Your task to perform on an android device: uninstall "NewsBreak: Local News & Alerts" Image 0: 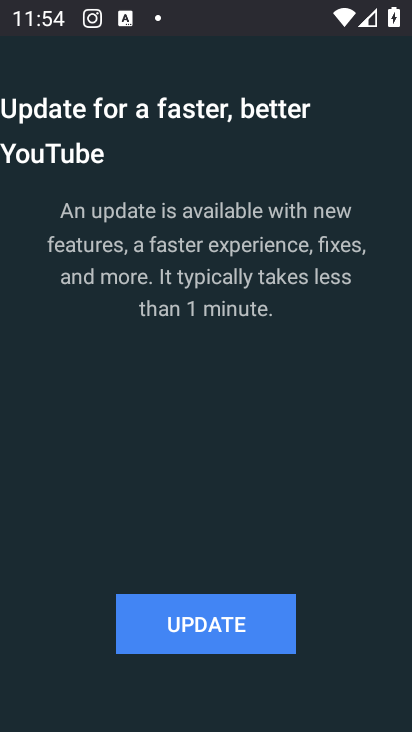
Step 0: press home button
Your task to perform on an android device: uninstall "NewsBreak: Local News & Alerts" Image 1: 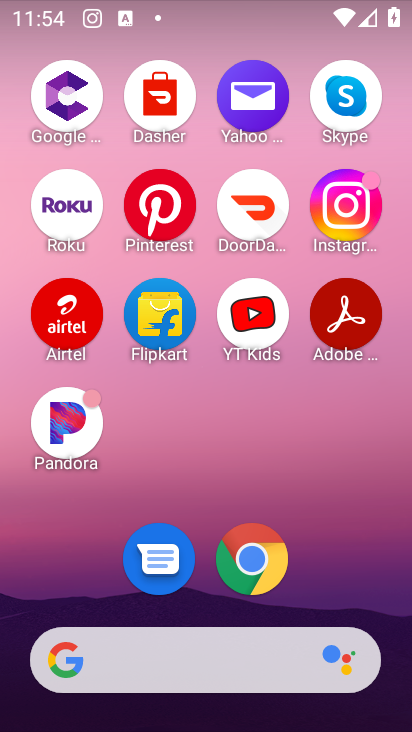
Step 1: drag from (82, 556) to (194, 38)
Your task to perform on an android device: uninstall "NewsBreak: Local News & Alerts" Image 2: 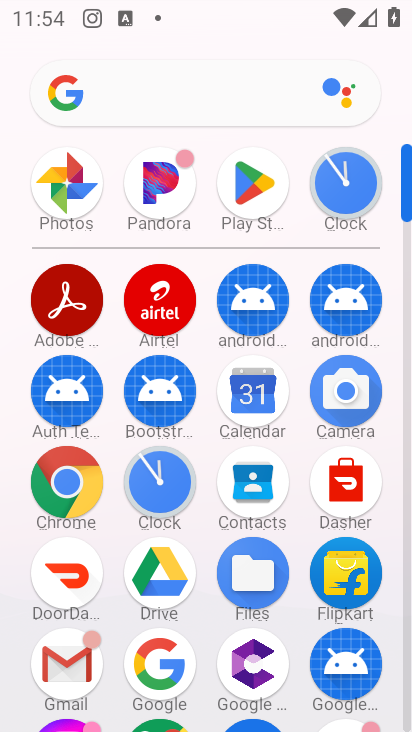
Step 2: click (248, 183)
Your task to perform on an android device: uninstall "NewsBreak: Local News & Alerts" Image 3: 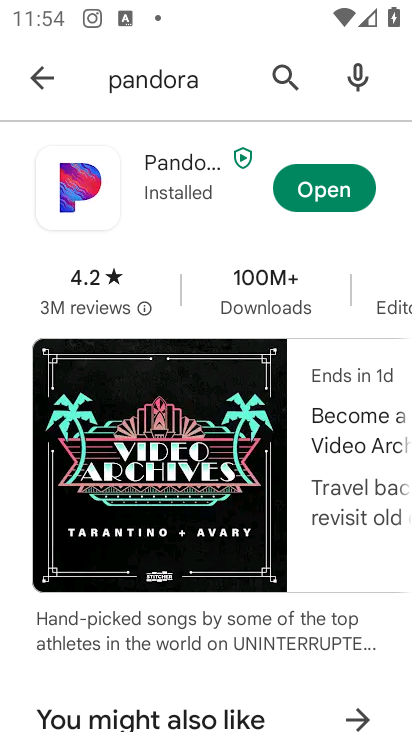
Step 3: click (278, 61)
Your task to perform on an android device: uninstall "NewsBreak: Local News & Alerts" Image 4: 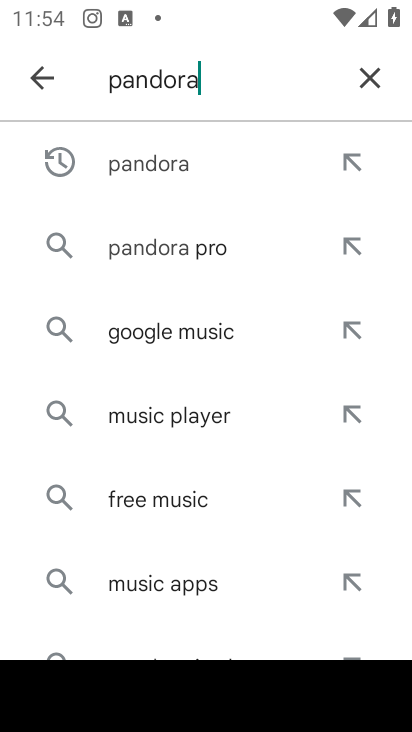
Step 4: click (384, 72)
Your task to perform on an android device: uninstall "NewsBreak: Local News & Alerts" Image 5: 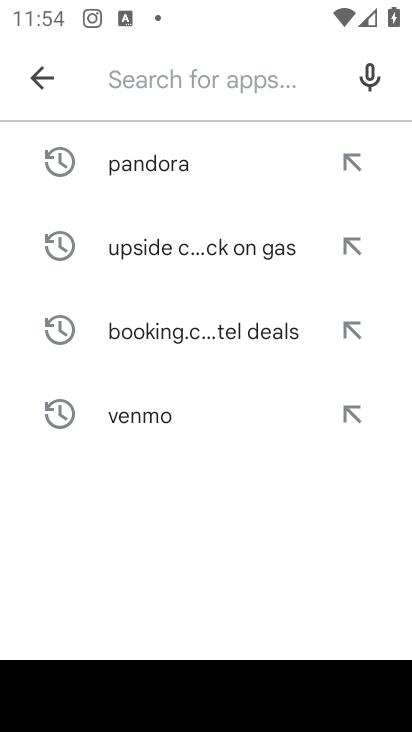
Step 5: click (244, 80)
Your task to perform on an android device: uninstall "NewsBreak: Local News & Alerts" Image 6: 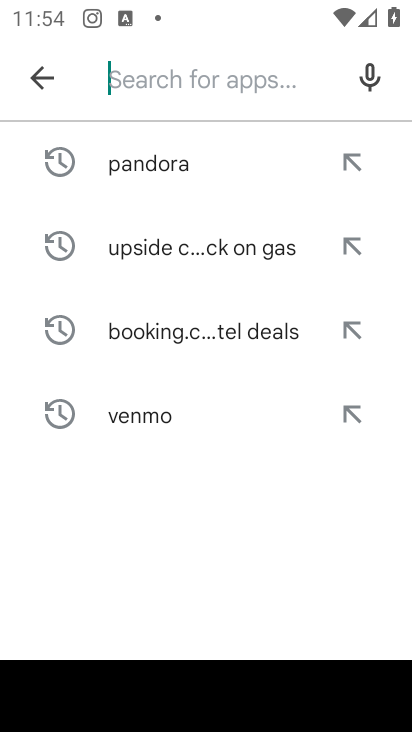
Step 6: type "news break"
Your task to perform on an android device: uninstall "NewsBreak: Local News & Alerts" Image 7: 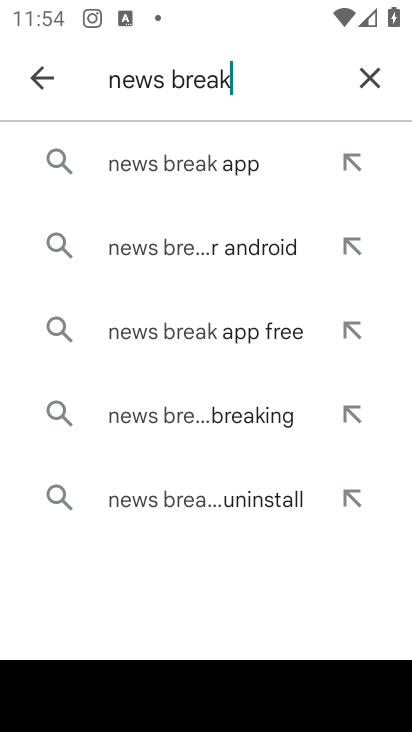
Step 7: click (235, 160)
Your task to perform on an android device: uninstall "NewsBreak: Local News & Alerts" Image 8: 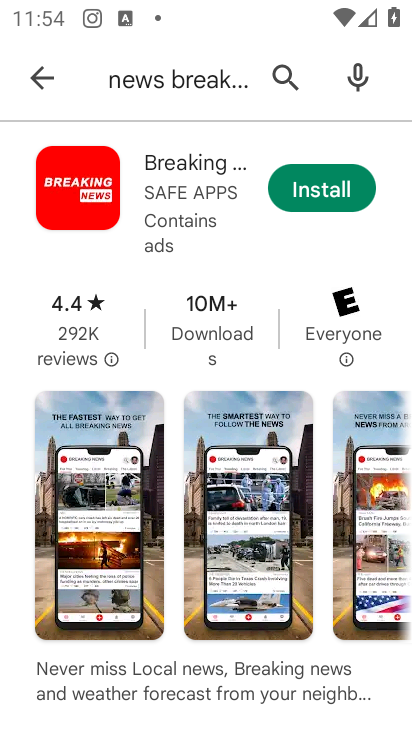
Step 8: drag from (182, 603) to (313, 711)
Your task to perform on an android device: uninstall "NewsBreak: Local News & Alerts" Image 9: 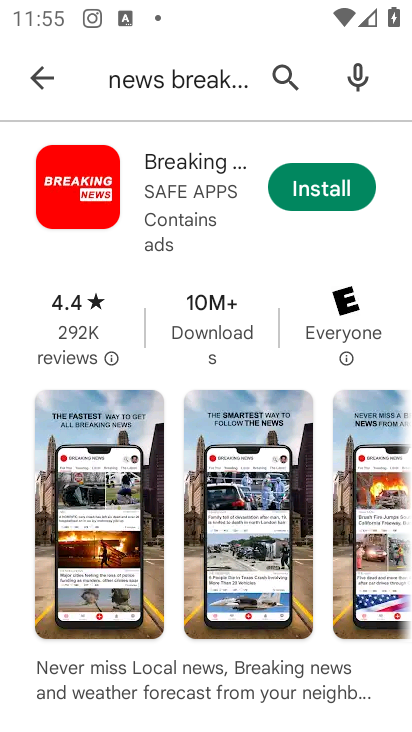
Step 9: click (279, 63)
Your task to perform on an android device: uninstall "NewsBreak: Local News & Alerts" Image 10: 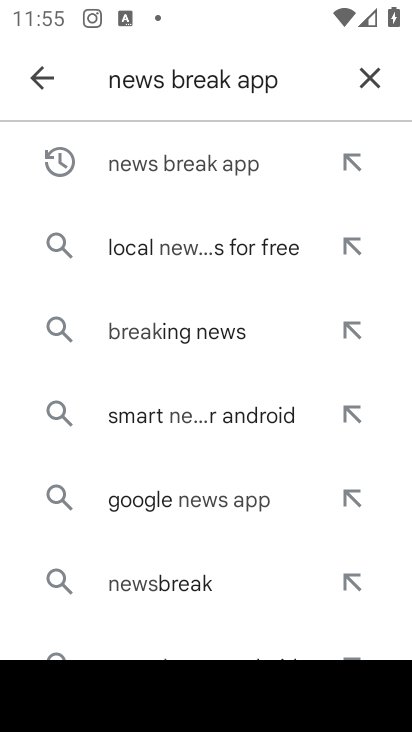
Step 10: click (371, 76)
Your task to perform on an android device: uninstall "NewsBreak: Local News & Alerts" Image 11: 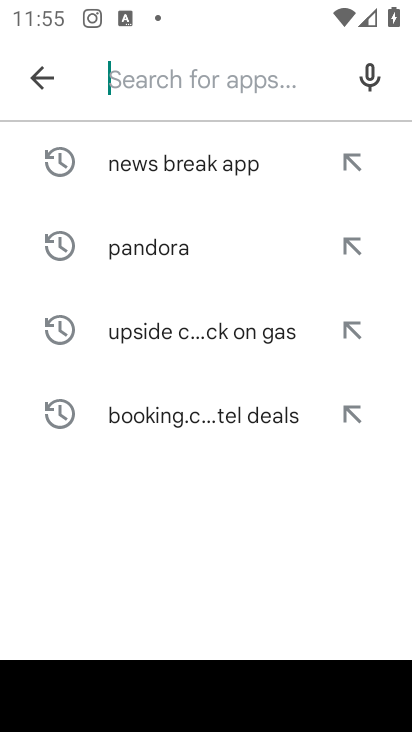
Step 11: drag from (371, 76) to (195, 88)
Your task to perform on an android device: uninstall "NewsBreak: Local News & Alerts" Image 12: 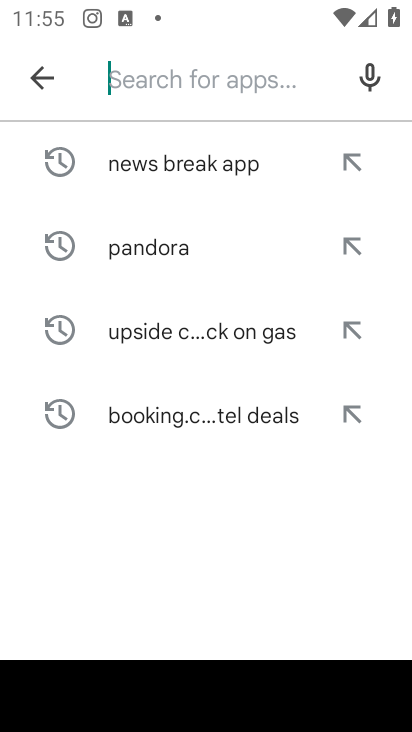
Step 12: click (170, 81)
Your task to perform on an android device: uninstall "NewsBreak: Local News & Alerts" Image 13: 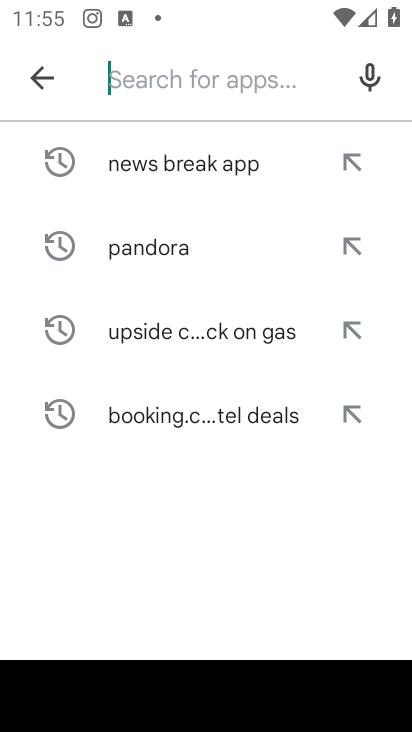
Step 13: type "NewsBreak: Local News & Alerts"
Your task to perform on an android device: uninstall "NewsBreak: Local News & Alerts" Image 14: 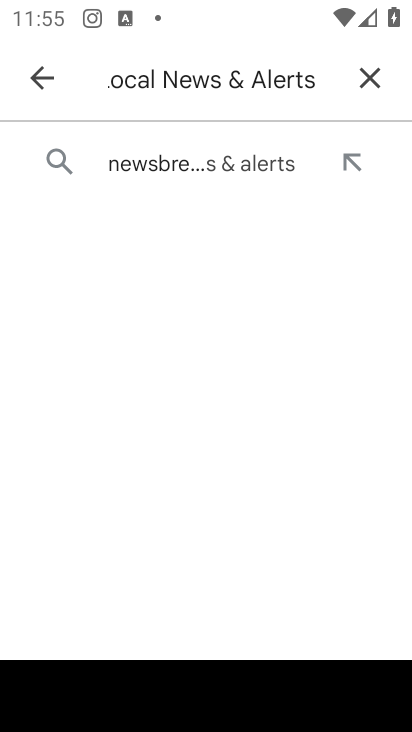
Step 14: click (178, 160)
Your task to perform on an android device: uninstall "NewsBreak: Local News & Alerts" Image 15: 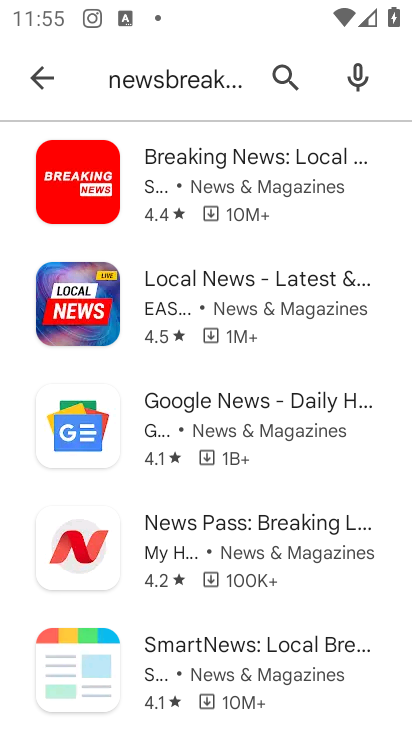
Step 15: click (187, 163)
Your task to perform on an android device: uninstall "NewsBreak: Local News & Alerts" Image 16: 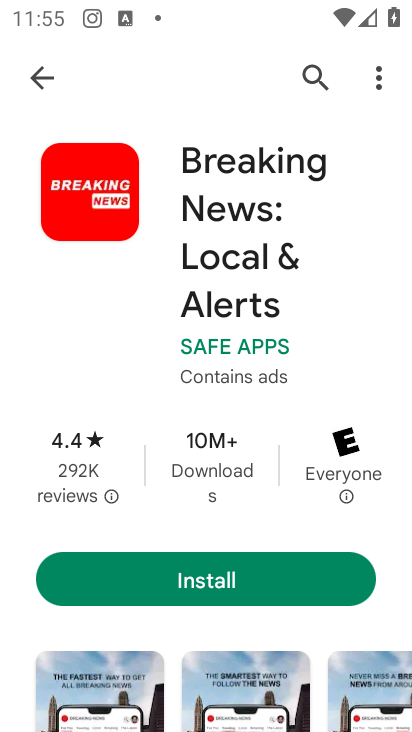
Step 16: task complete